Your task to perform on an android device: read, delete, or share a saved page in the chrome app Image 0: 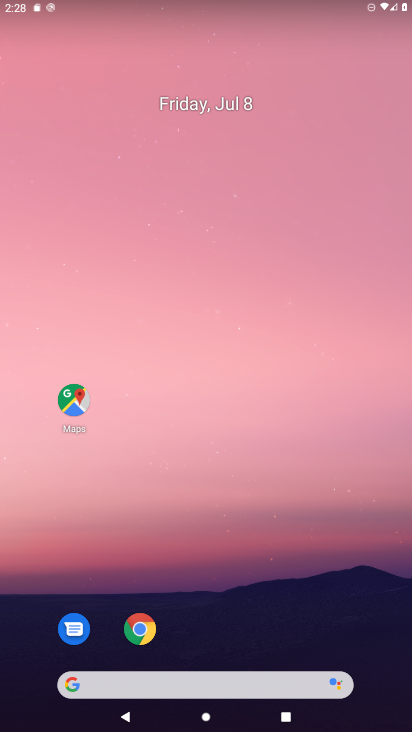
Step 0: click (133, 625)
Your task to perform on an android device: read, delete, or share a saved page in the chrome app Image 1: 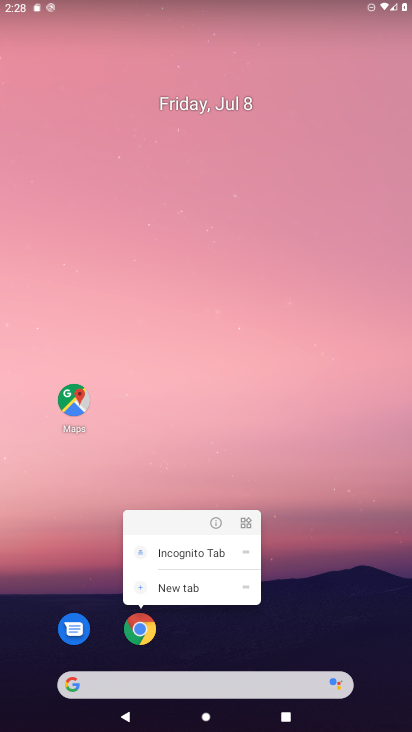
Step 1: task complete